Your task to perform on an android device: turn off airplane mode Image 0: 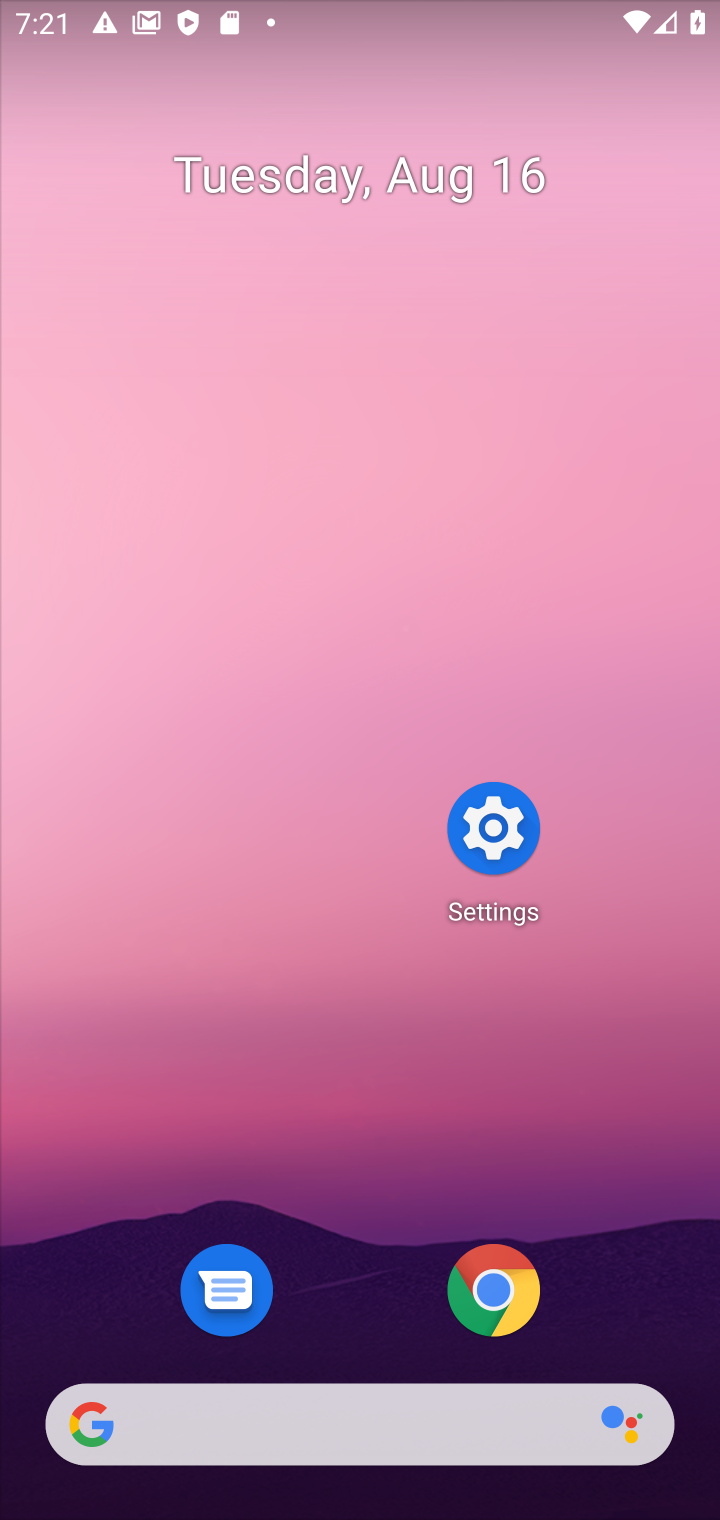
Step 0: press home button
Your task to perform on an android device: turn off airplane mode Image 1: 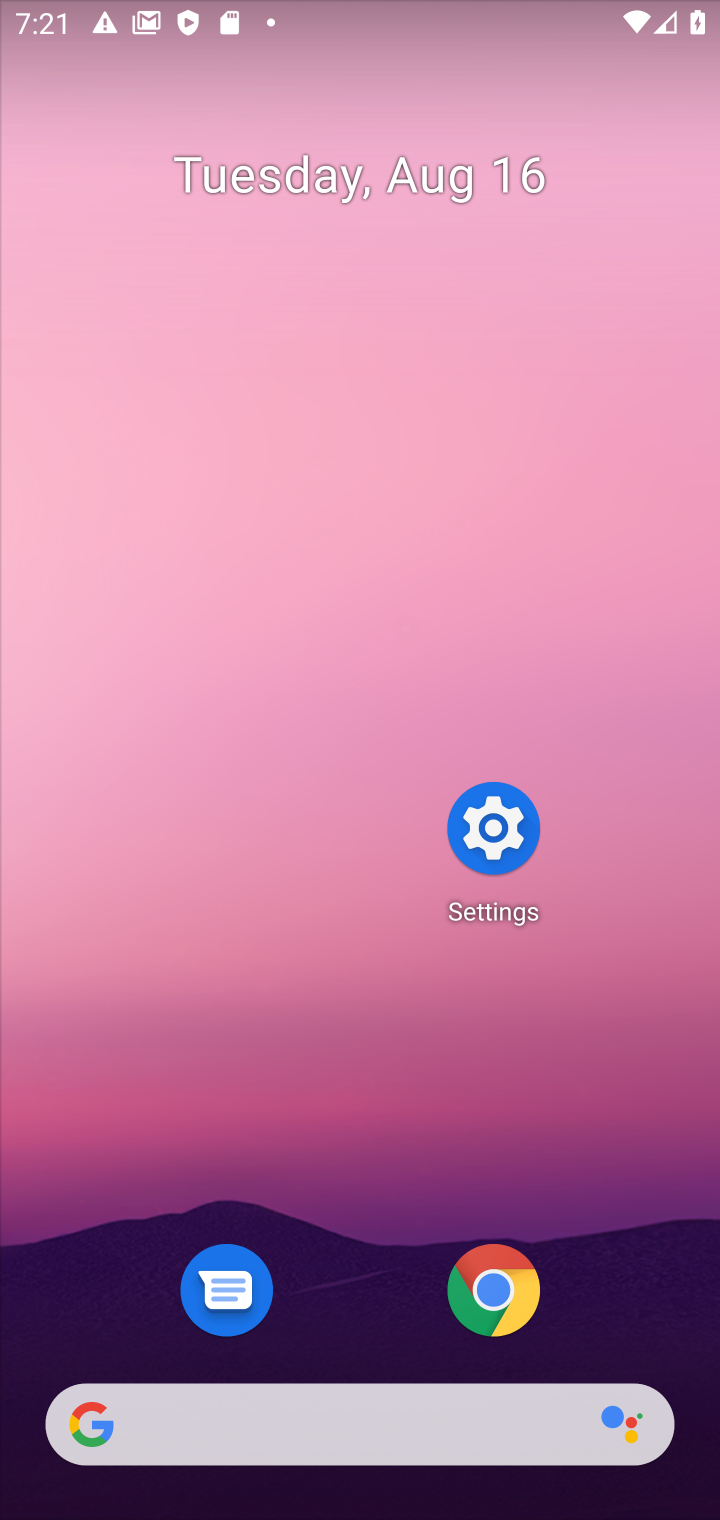
Step 1: click (494, 825)
Your task to perform on an android device: turn off airplane mode Image 2: 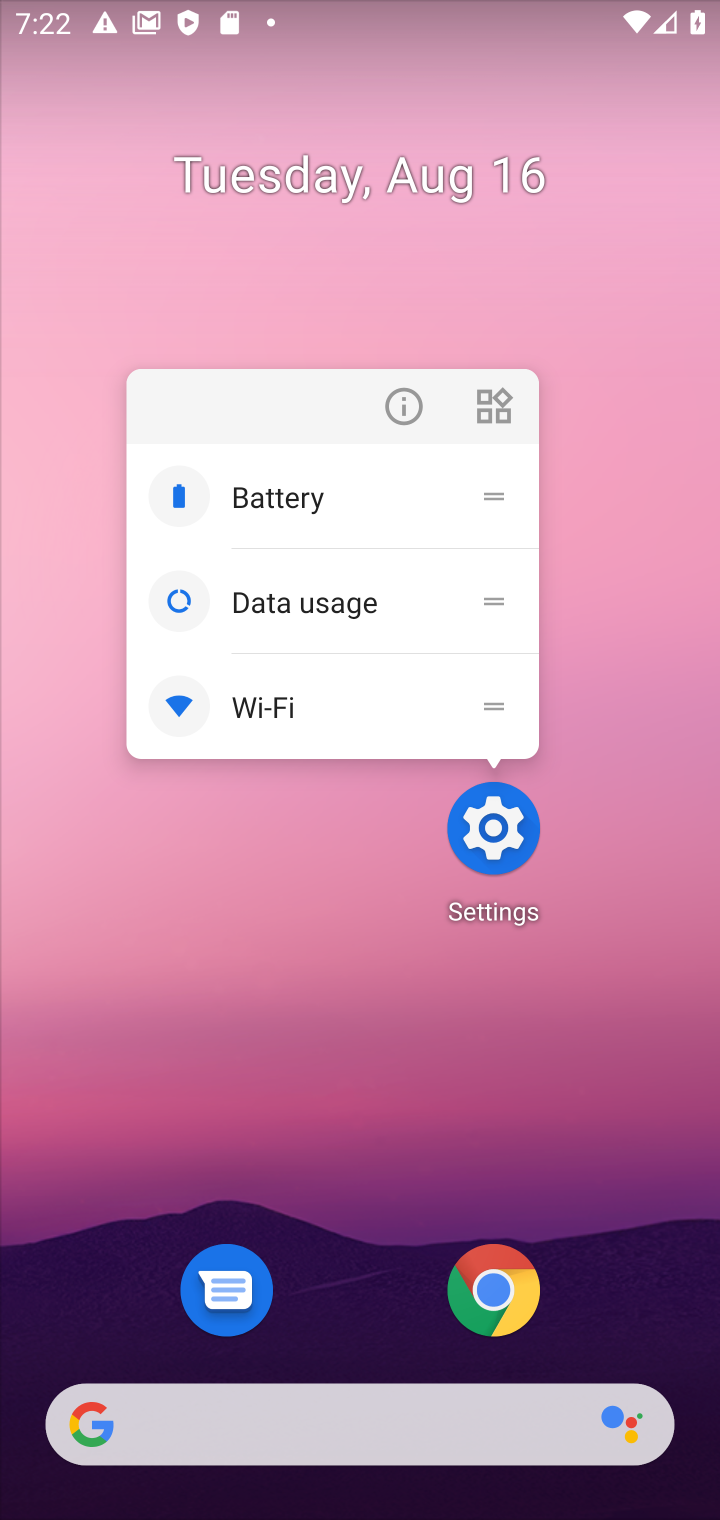
Step 2: click (494, 825)
Your task to perform on an android device: turn off airplane mode Image 3: 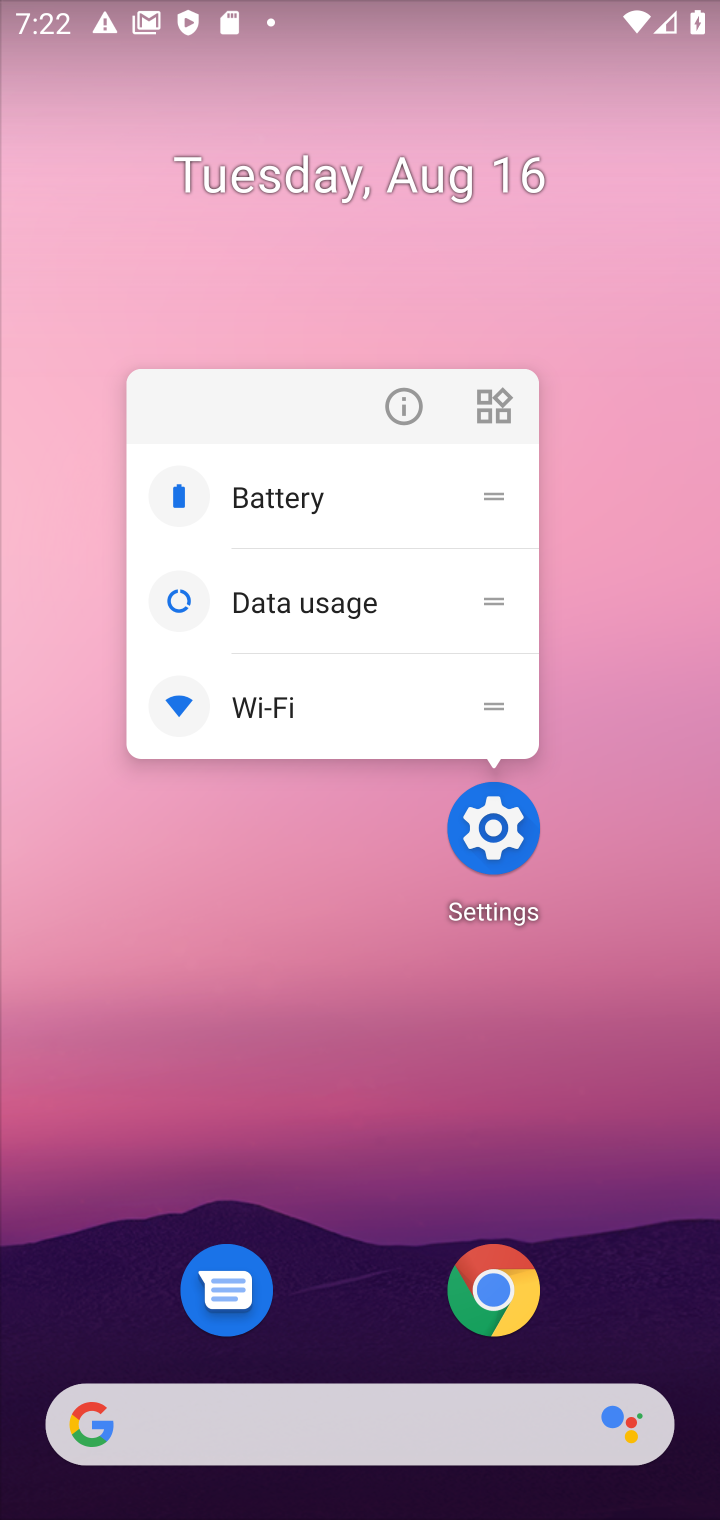
Step 3: click (496, 862)
Your task to perform on an android device: turn off airplane mode Image 4: 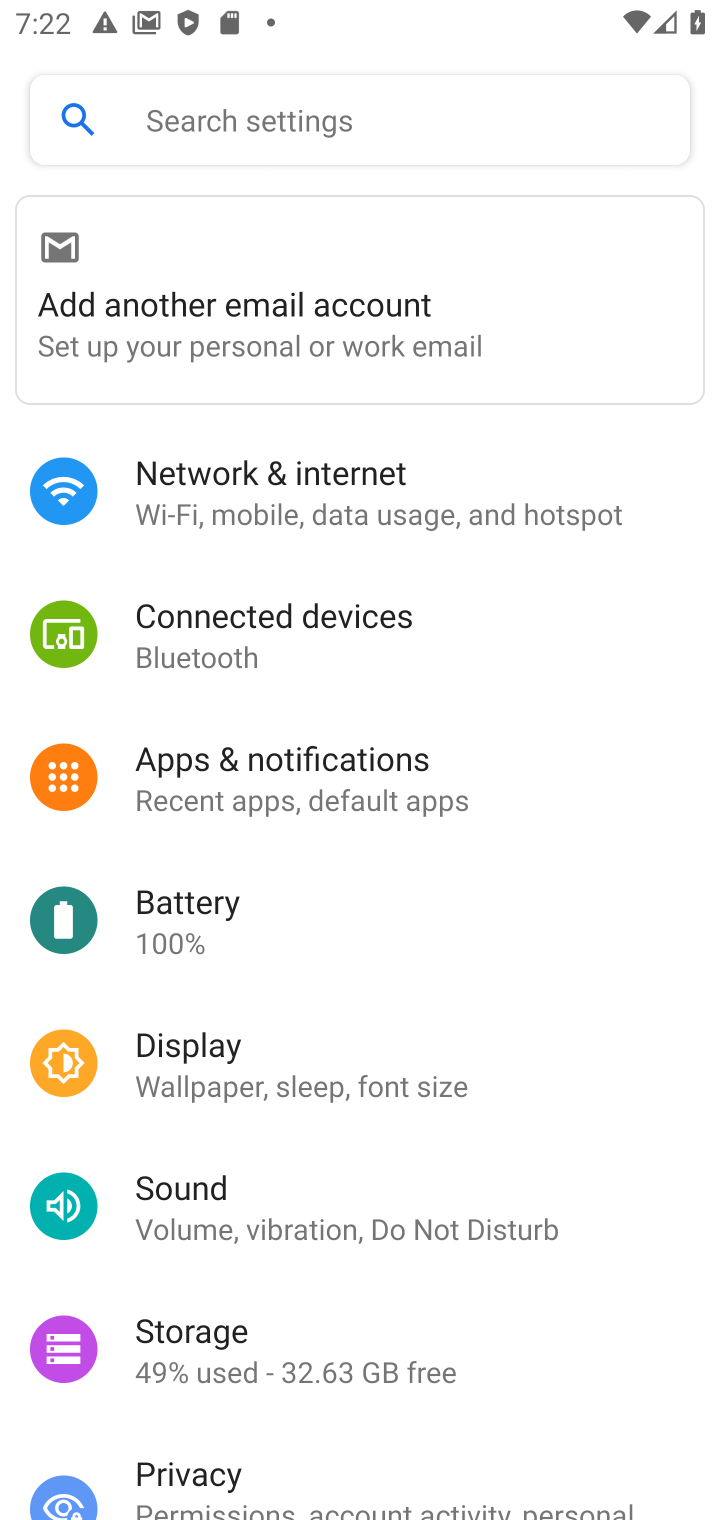
Step 4: click (335, 488)
Your task to perform on an android device: turn off airplane mode Image 5: 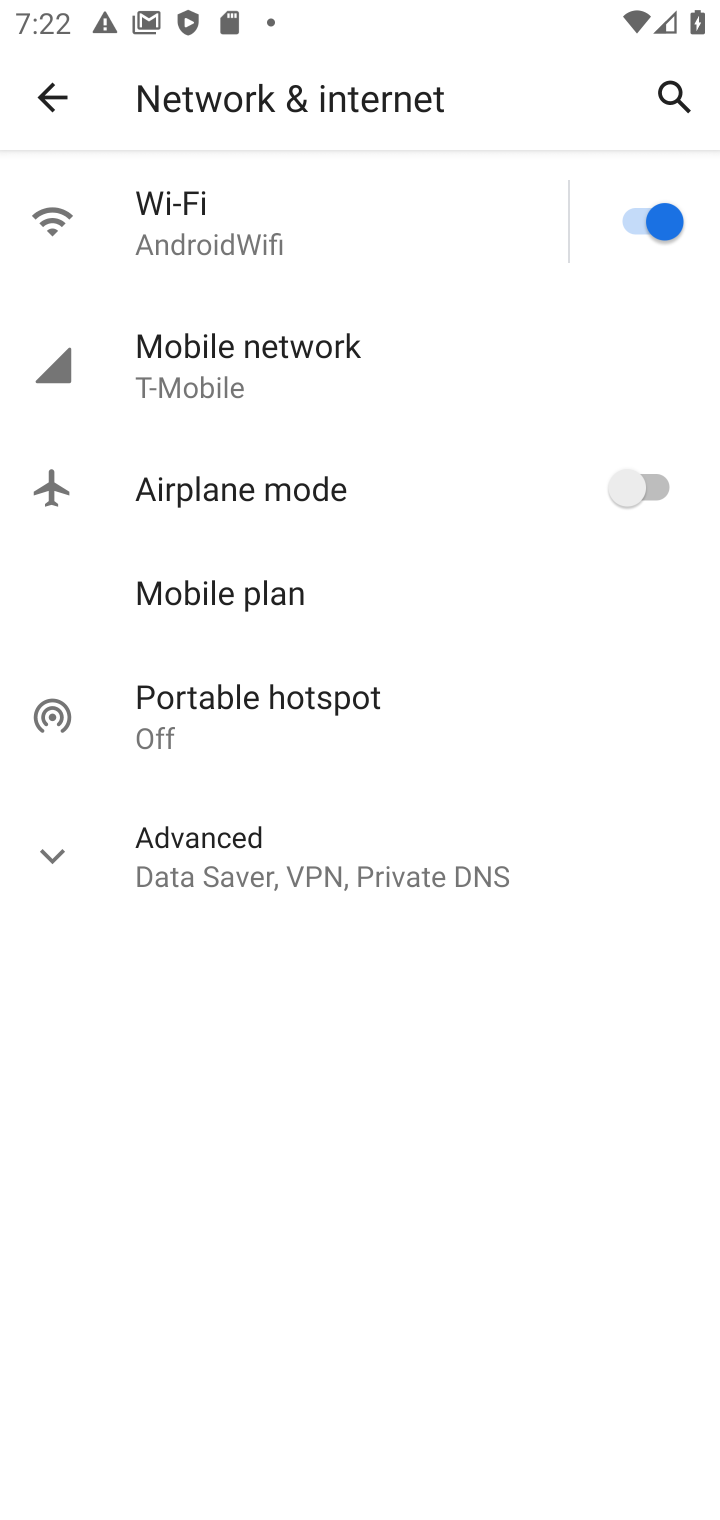
Step 5: task complete